Your task to perform on an android device: turn on data saver in the chrome app Image 0: 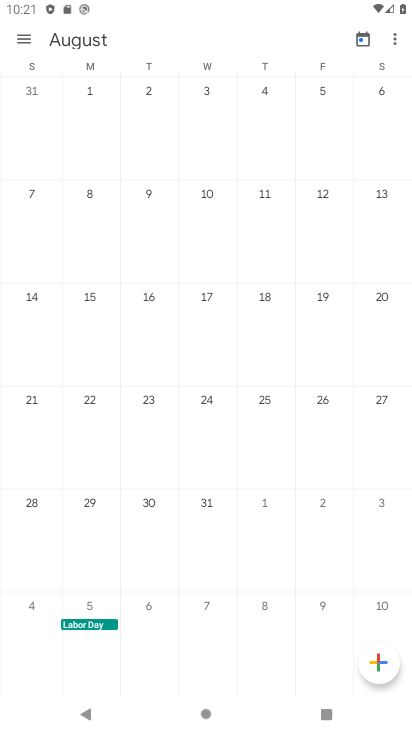
Step 0: press home button
Your task to perform on an android device: turn on data saver in the chrome app Image 1: 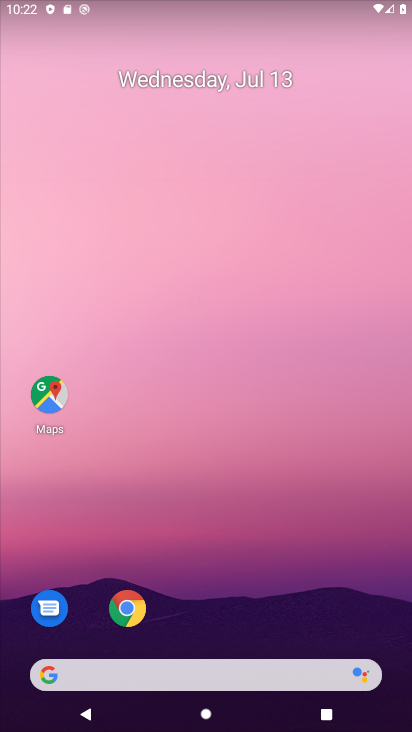
Step 1: click (122, 609)
Your task to perform on an android device: turn on data saver in the chrome app Image 2: 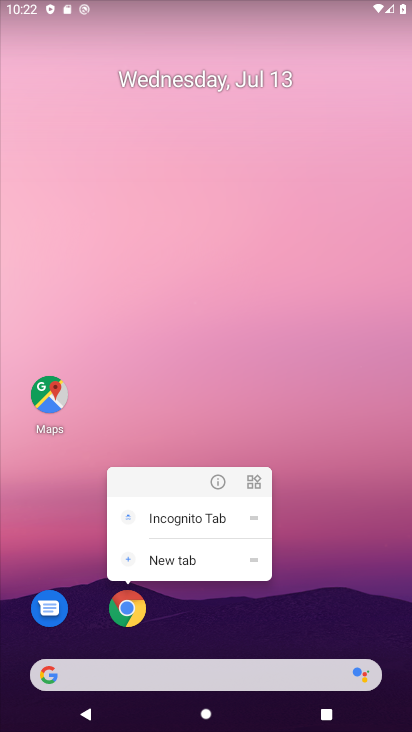
Step 2: click (119, 608)
Your task to perform on an android device: turn on data saver in the chrome app Image 3: 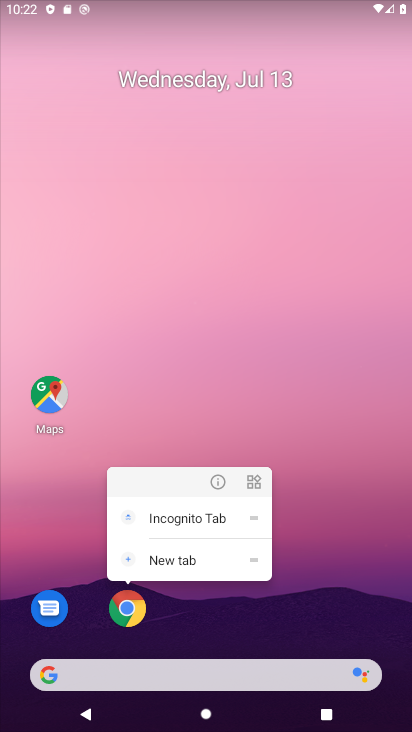
Step 3: click (119, 608)
Your task to perform on an android device: turn on data saver in the chrome app Image 4: 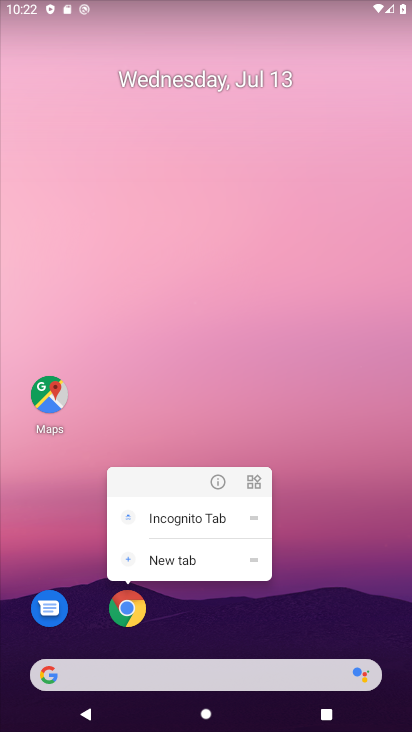
Step 4: click (119, 608)
Your task to perform on an android device: turn on data saver in the chrome app Image 5: 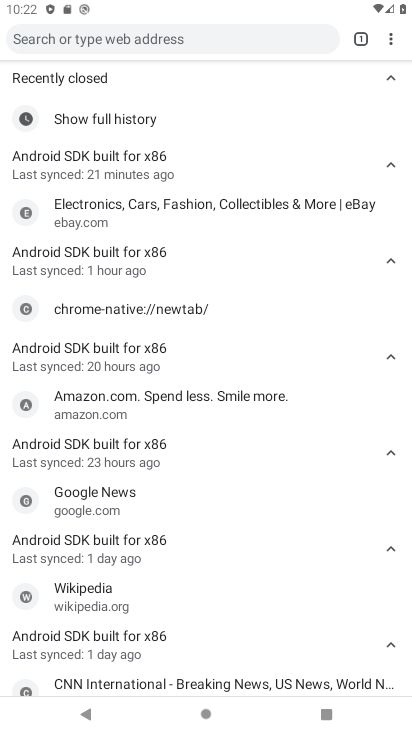
Step 5: drag from (394, 38) to (265, 318)
Your task to perform on an android device: turn on data saver in the chrome app Image 6: 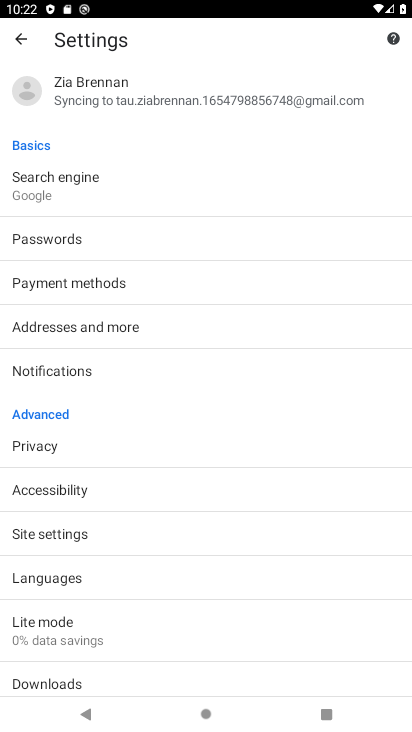
Step 6: click (67, 630)
Your task to perform on an android device: turn on data saver in the chrome app Image 7: 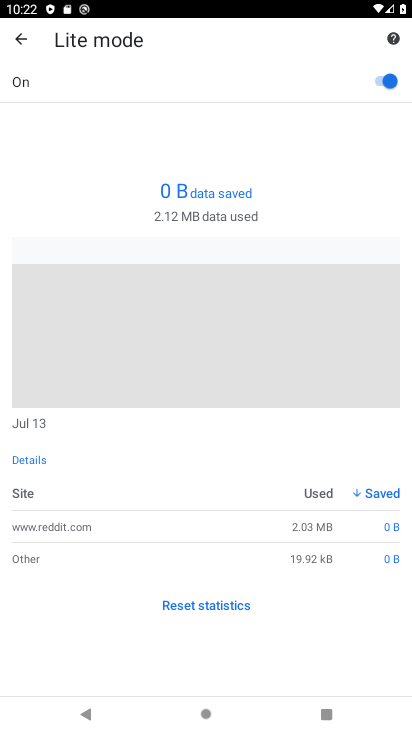
Step 7: task complete